Your task to perform on an android device: turn on showing notifications on the lock screen Image 0: 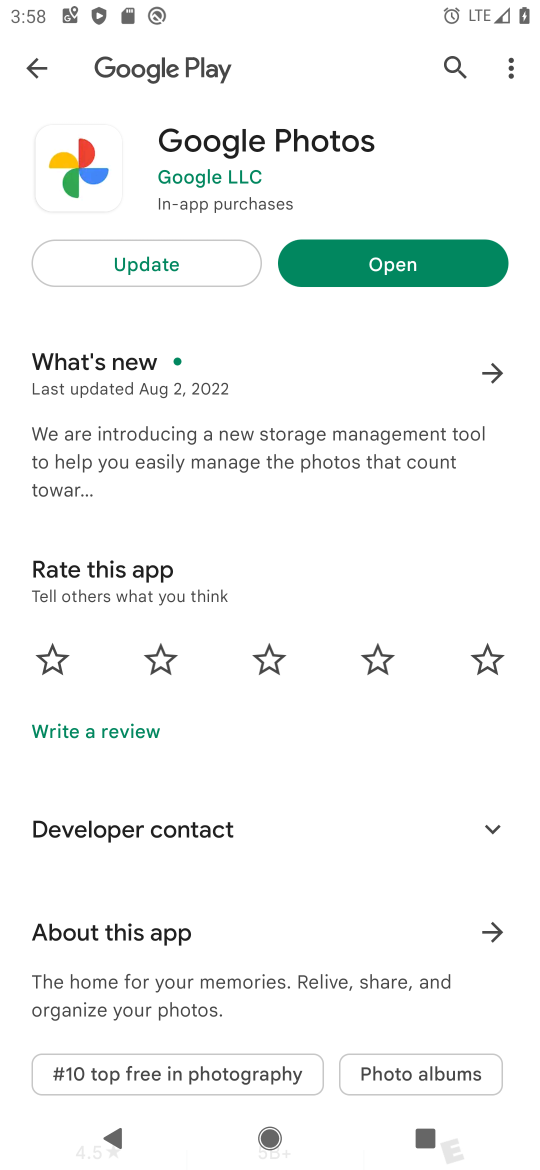
Step 0: press home button
Your task to perform on an android device: turn on showing notifications on the lock screen Image 1: 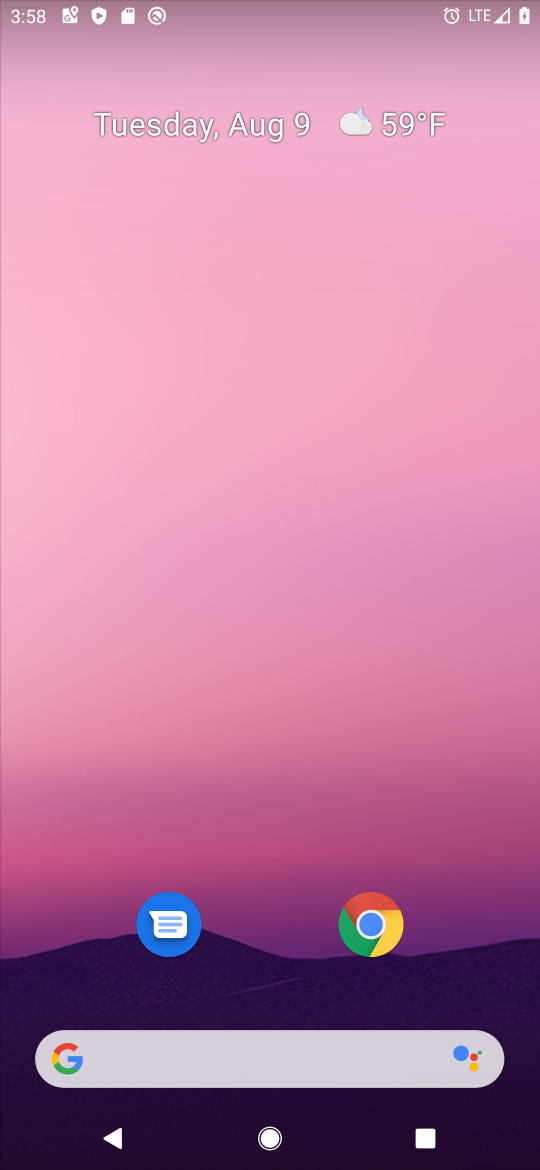
Step 1: drag from (280, 884) to (384, 0)
Your task to perform on an android device: turn on showing notifications on the lock screen Image 2: 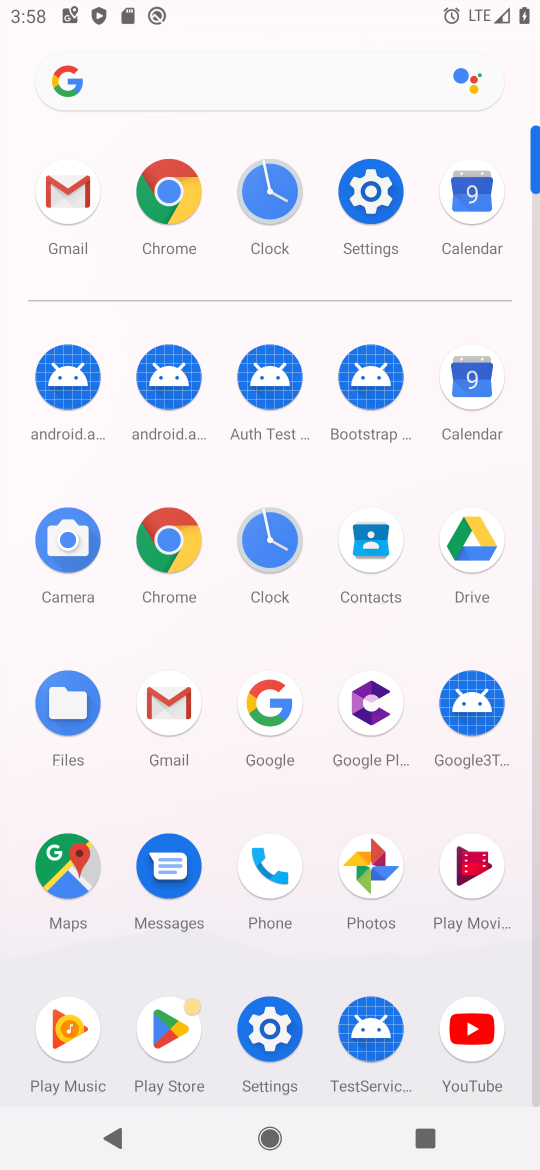
Step 2: click (371, 189)
Your task to perform on an android device: turn on showing notifications on the lock screen Image 3: 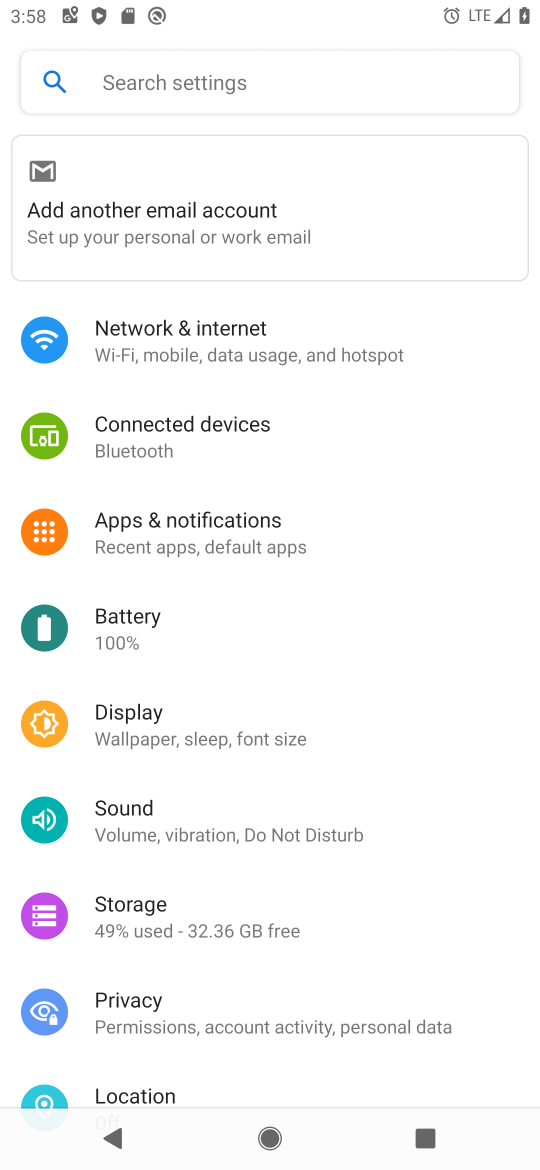
Step 3: click (269, 517)
Your task to perform on an android device: turn on showing notifications on the lock screen Image 4: 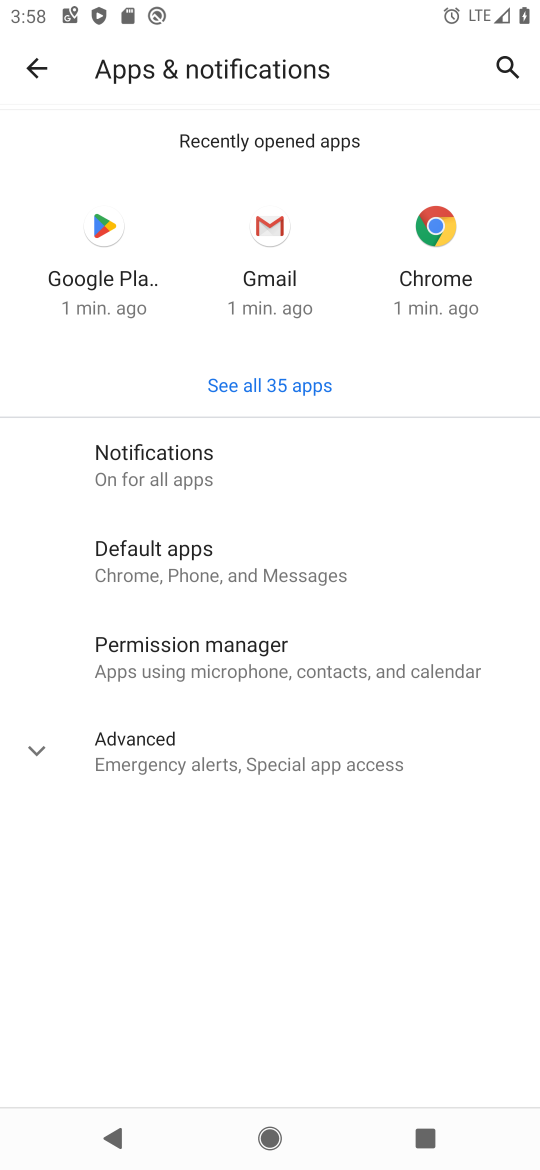
Step 4: click (196, 477)
Your task to perform on an android device: turn on showing notifications on the lock screen Image 5: 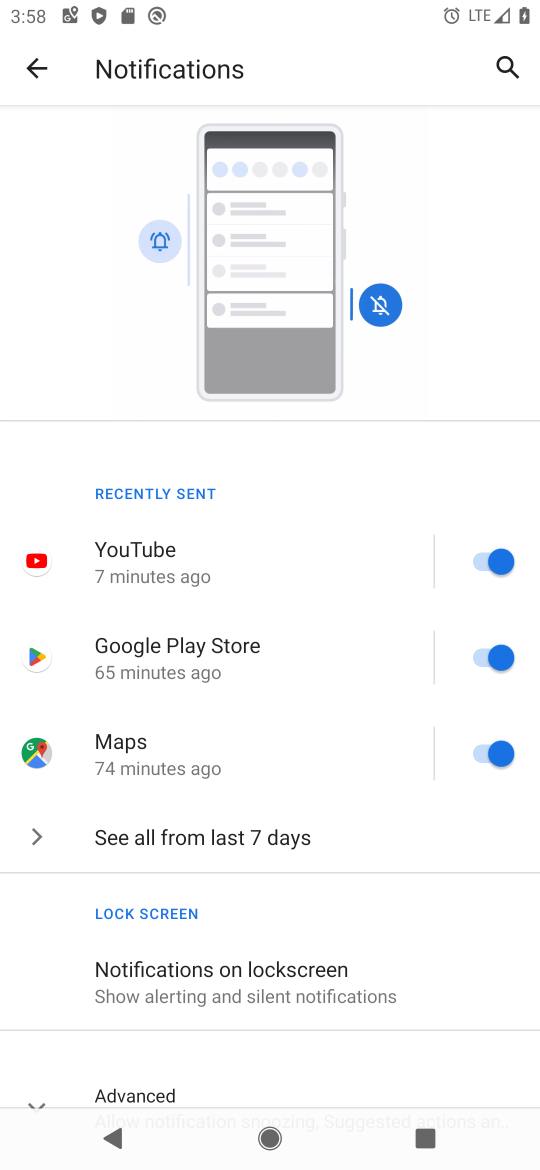
Step 5: click (274, 972)
Your task to perform on an android device: turn on showing notifications on the lock screen Image 6: 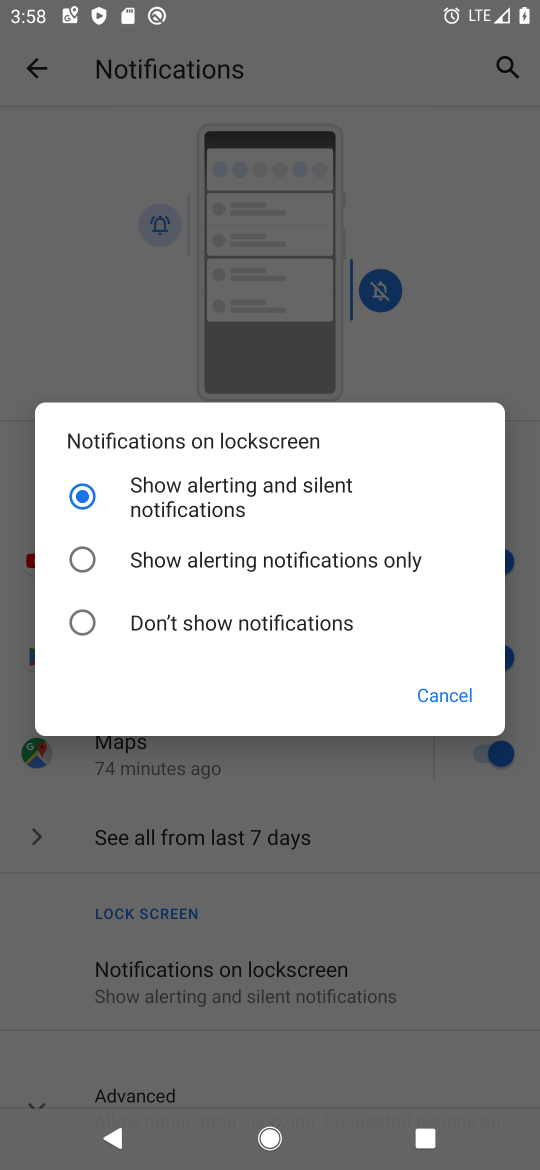
Step 6: click (230, 486)
Your task to perform on an android device: turn on showing notifications on the lock screen Image 7: 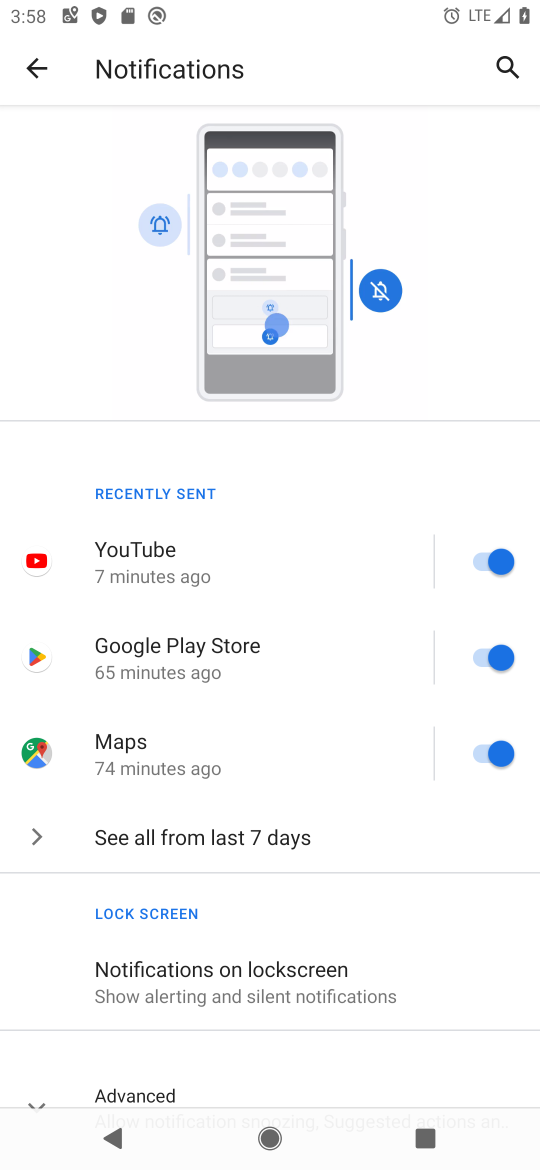
Step 7: task complete